Your task to perform on an android device: turn on location history Image 0: 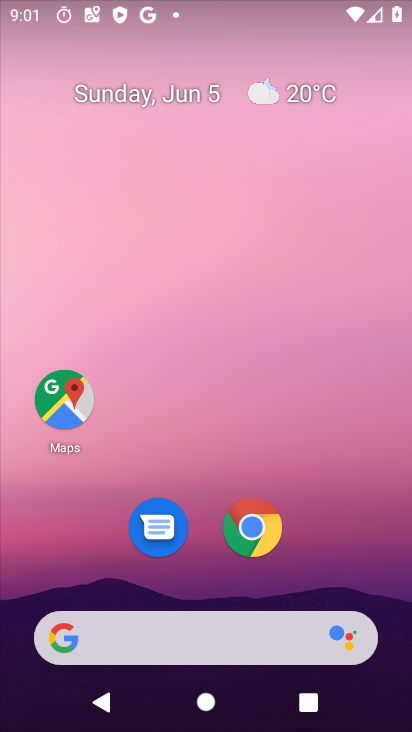
Step 0: drag from (334, 530) to (274, 58)
Your task to perform on an android device: turn on location history Image 1: 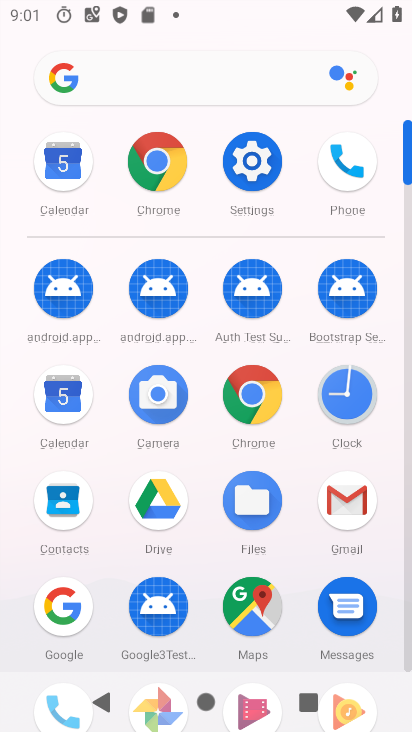
Step 1: click (241, 194)
Your task to perform on an android device: turn on location history Image 2: 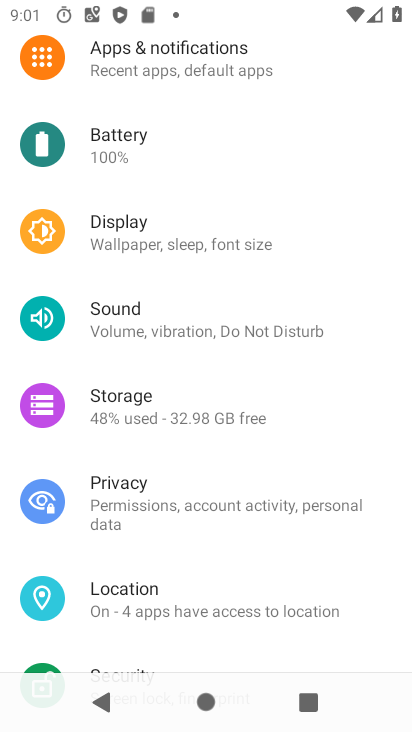
Step 2: click (145, 607)
Your task to perform on an android device: turn on location history Image 3: 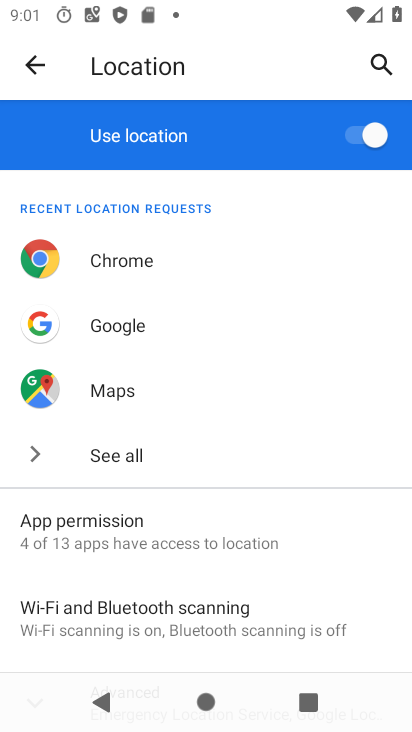
Step 3: drag from (89, 544) to (113, 78)
Your task to perform on an android device: turn on location history Image 4: 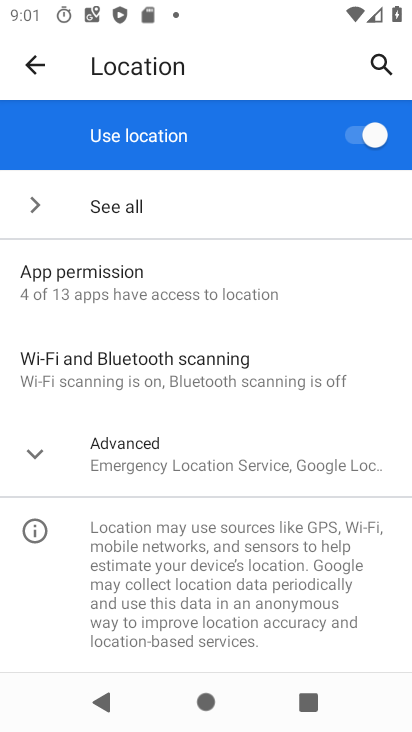
Step 4: click (162, 485)
Your task to perform on an android device: turn on location history Image 5: 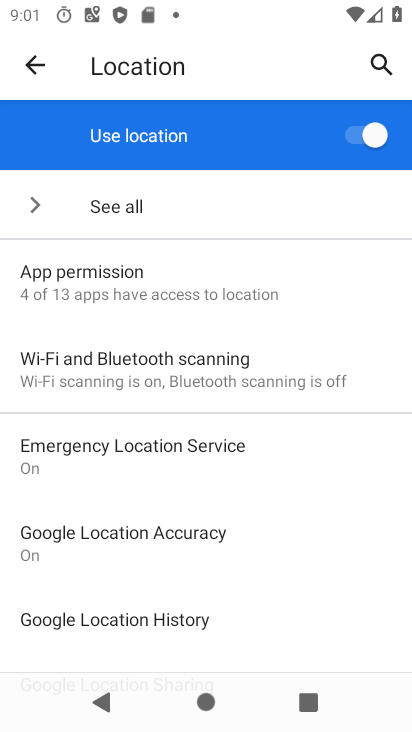
Step 5: click (187, 624)
Your task to perform on an android device: turn on location history Image 6: 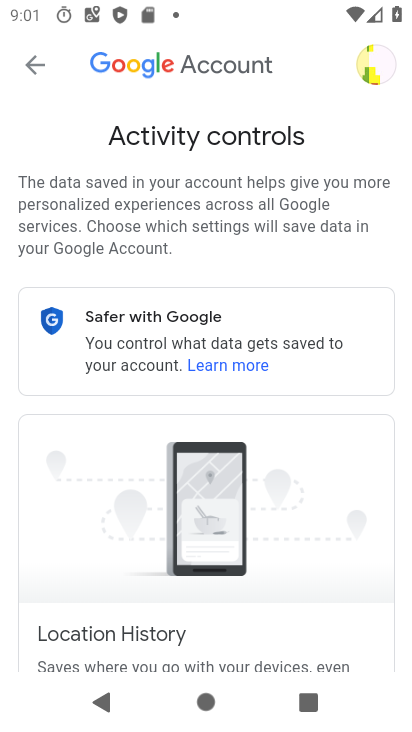
Step 6: drag from (247, 380) to (274, 235)
Your task to perform on an android device: turn on location history Image 7: 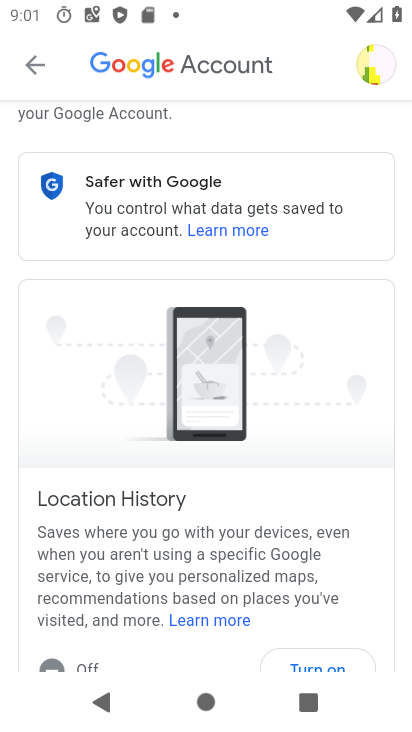
Step 7: drag from (247, 595) to (245, 222)
Your task to perform on an android device: turn on location history Image 8: 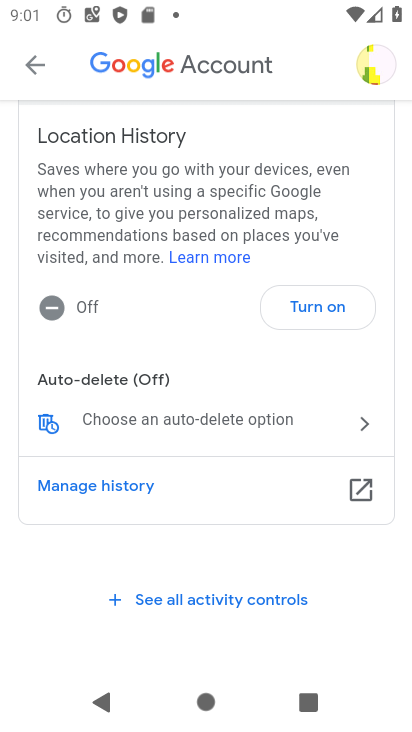
Step 8: click (333, 313)
Your task to perform on an android device: turn on location history Image 9: 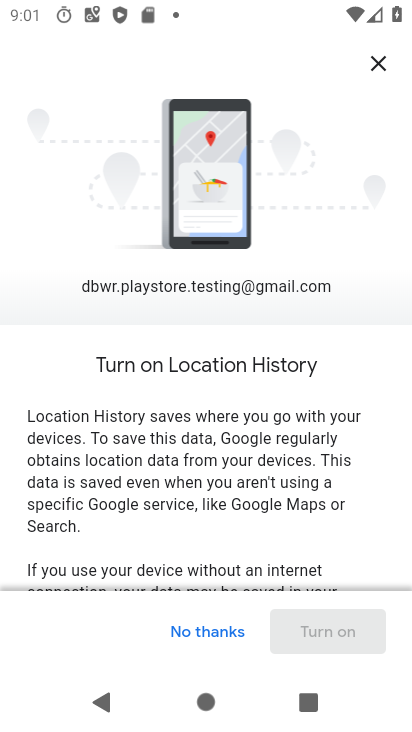
Step 9: drag from (316, 496) to (316, 66)
Your task to perform on an android device: turn on location history Image 10: 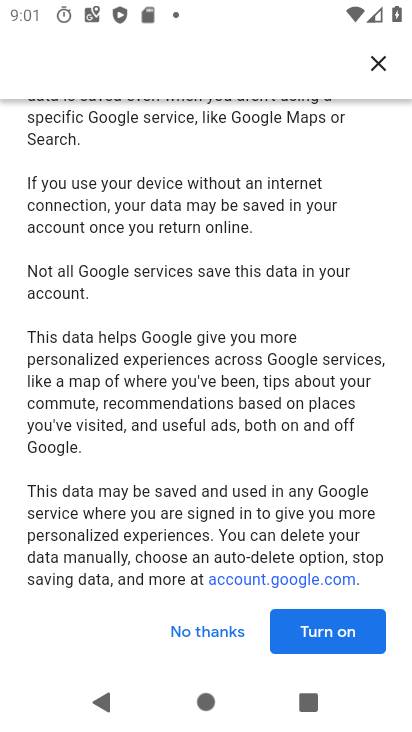
Step 10: drag from (226, 497) to (266, 84)
Your task to perform on an android device: turn on location history Image 11: 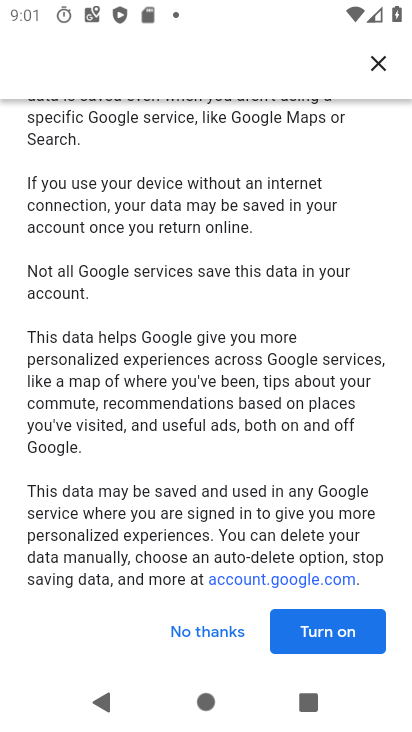
Step 11: click (337, 631)
Your task to perform on an android device: turn on location history Image 12: 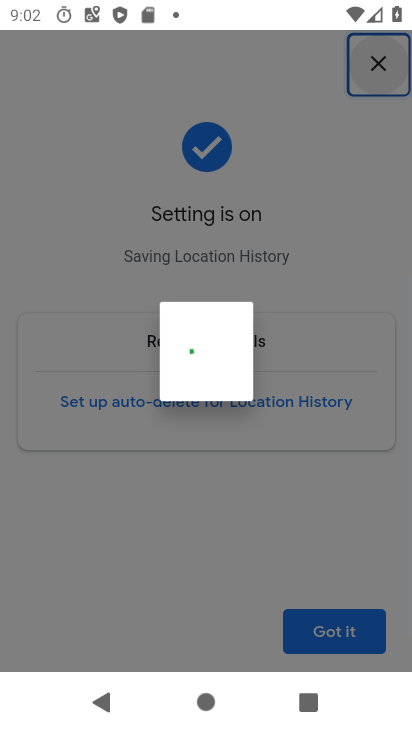
Step 12: click (337, 631)
Your task to perform on an android device: turn on location history Image 13: 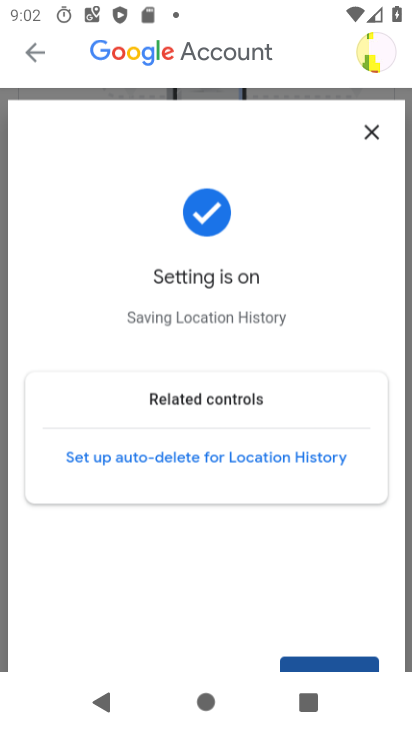
Step 13: task complete